Your task to perform on an android device: allow notifications from all sites in the chrome app Image 0: 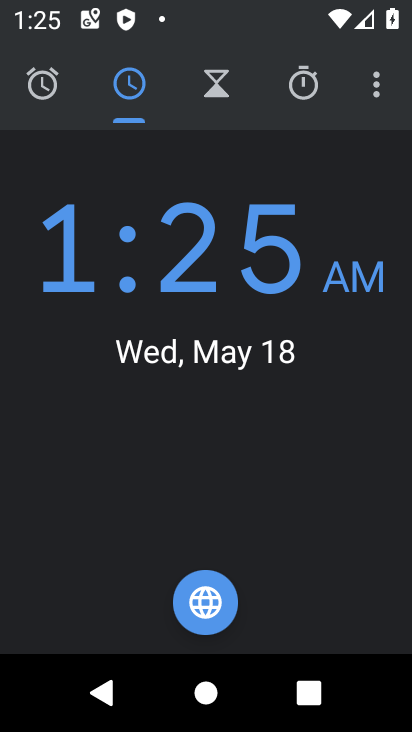
Step 0: press home button
Your task to perform on an android device: allow notifications from all sites in the chrome app Image 1: 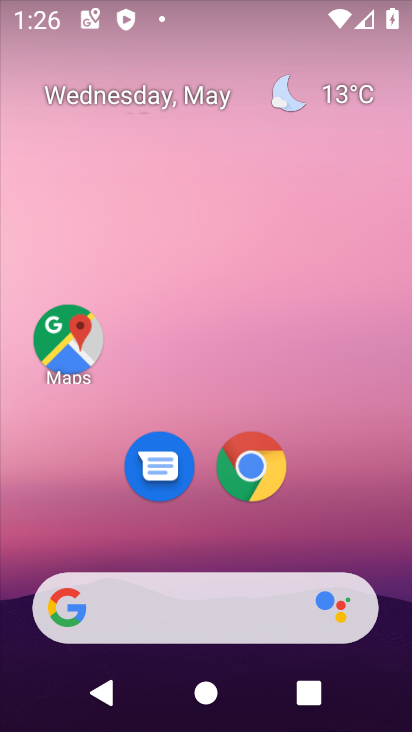
Step 1: drag from (350, 503) to (315, 178)
Your task to perform on an android device: allow notifications from all sites in the chrome app Image 2: 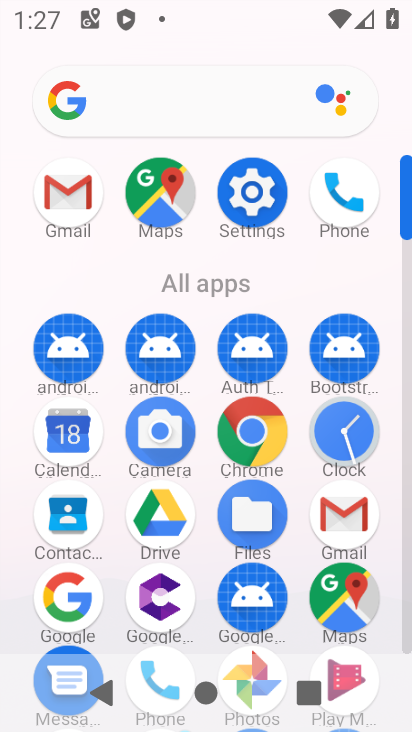
Step 2: click (256, 421)
Your task to perform on an android device: allow notifications from all sites in the chrome app Image 3: 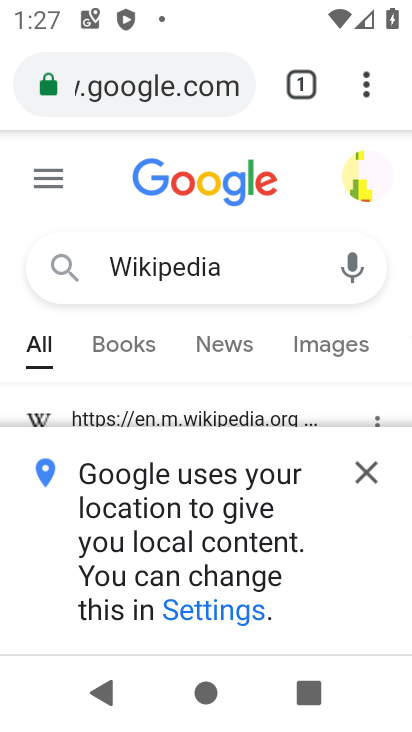
Step 3: drag from (360, 95) to (99, 528)
Your task to perform on an android device: allow notifications from all sites in the chrome app Image 4: 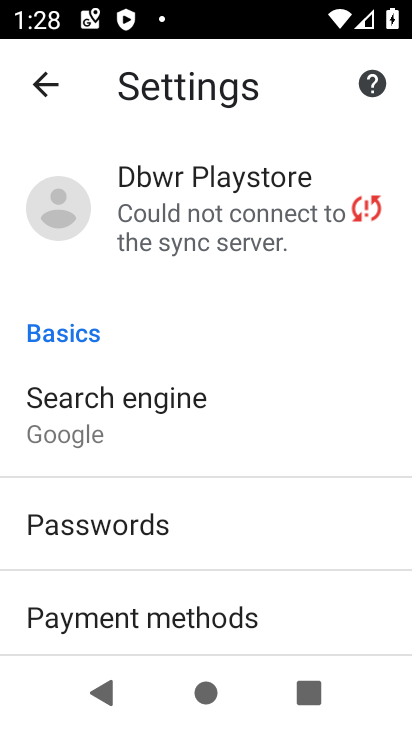
Step 4: drag from (161, 571) to (173, 446)
Your task to perform on an android device: allow notifications from all sites in the chrome app Image 5: 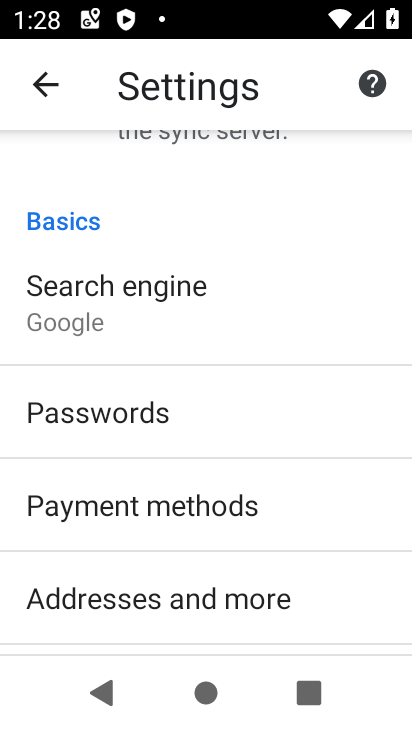
Step 5: drag from (275, 575) to (266, 366)
Your task to perform on an android device: allow notifications from all sites in the chrome app Image 6: 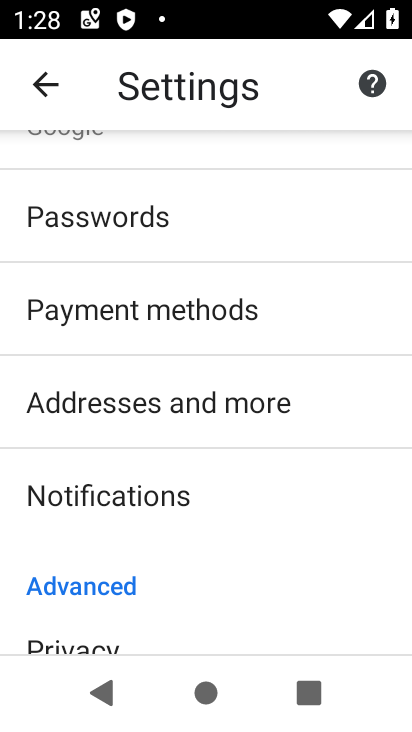
Step 6: drag from (195, 553) to (251, 183)
Your task to perform on an android device: allow notifications from all sites in the chrome app Image 7: 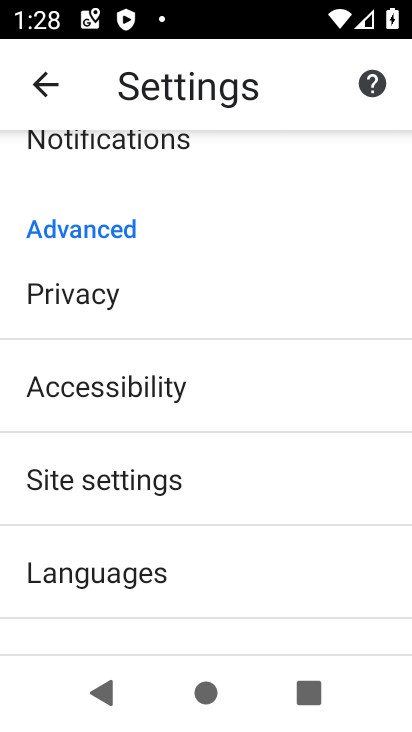
Step 7: click (175, 498)
Your task to perform on an android device: allow notifications from all sites in the chrome app Image 8: 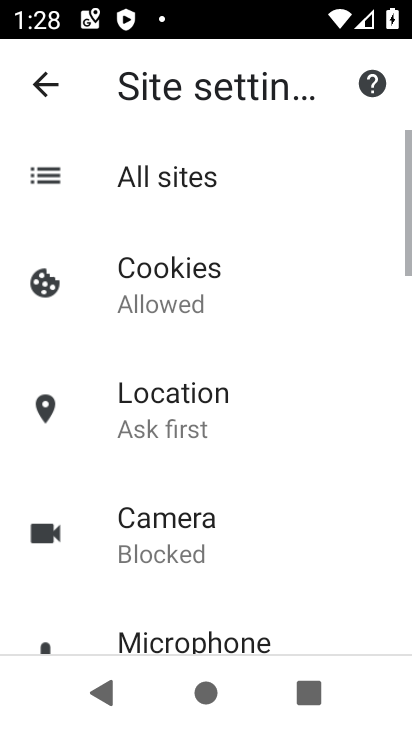
Step 8: drag from (172, 497) to (194, 206)
Your task to perform on an android device: allow notifications from all sites in the chrome app Image 9: 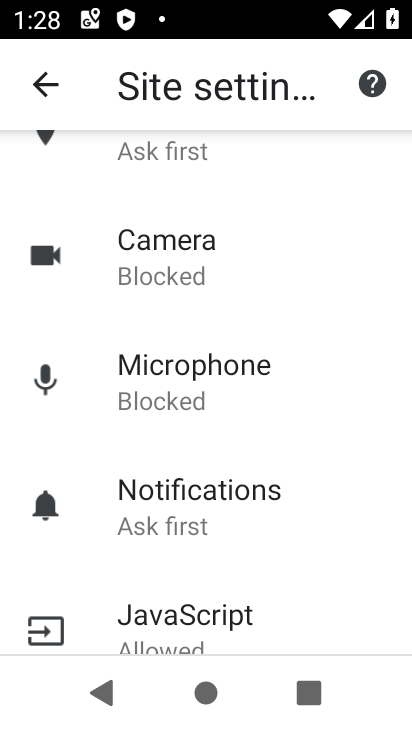
Step 9: drag from (215, 617) to (221, 271)
Your task to perform on an android device: allow notifications from all sites in the chrome app Image 10: 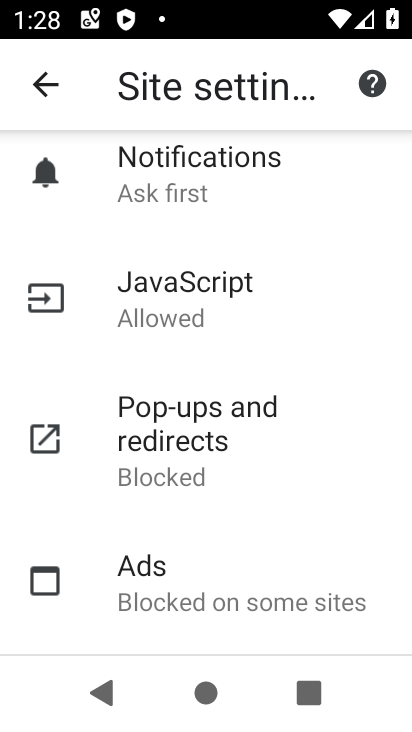
Step 10: drag from (206, 238) to (247, 608)
Your task to perform on an android device: allow notifications from all sites in the chrome app Image 11: 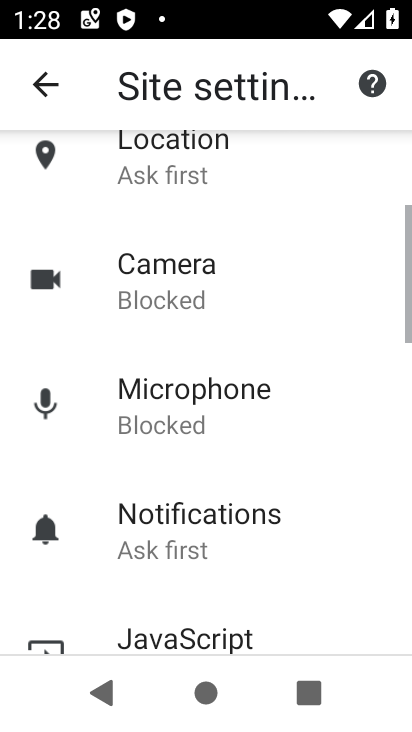
Step 11: drag from (257, 421) to (252, 653)
Your task to perform on an android device: allow notifications from all sites in the chrome app Image 12: 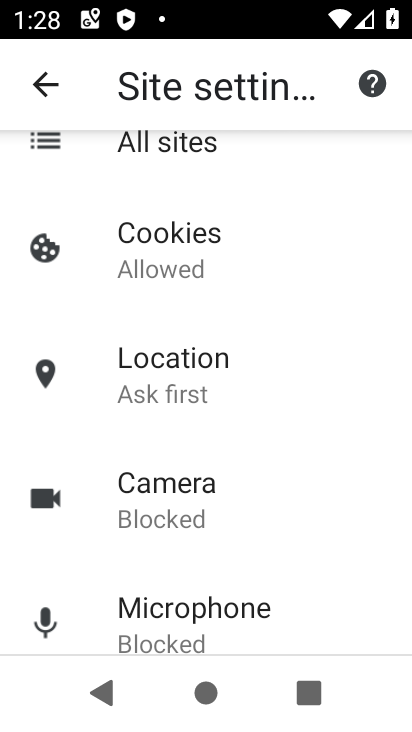
Step 12: click (171, 147)
Your task to perform on an android device: allow notifications from all sites in the chrome app Image 13: 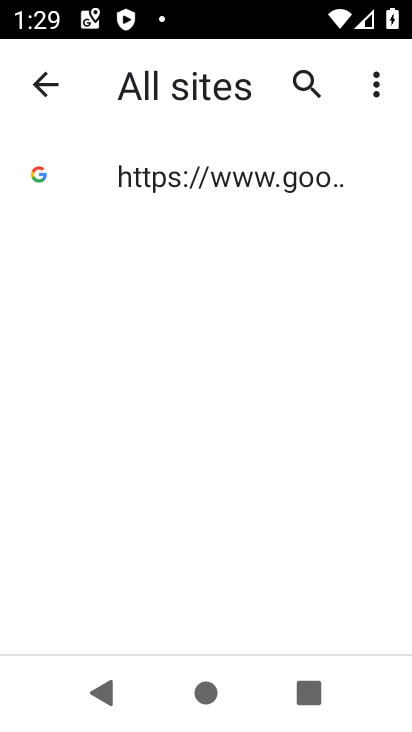
Step 13: click (202, 184)
Your task to perform on an android device: allow notifications from all sites in the chrome app Image 14: 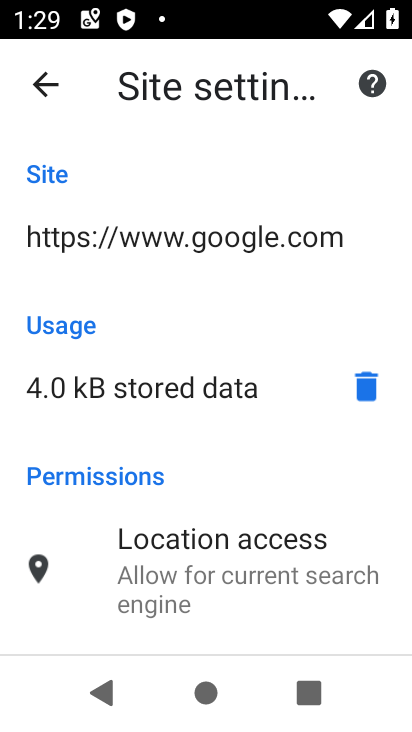
Step 14: drag from (205, 441) to (204, 117)
Your task to perform on an android device: allow notifications from all sites in the chrome app Image 15: 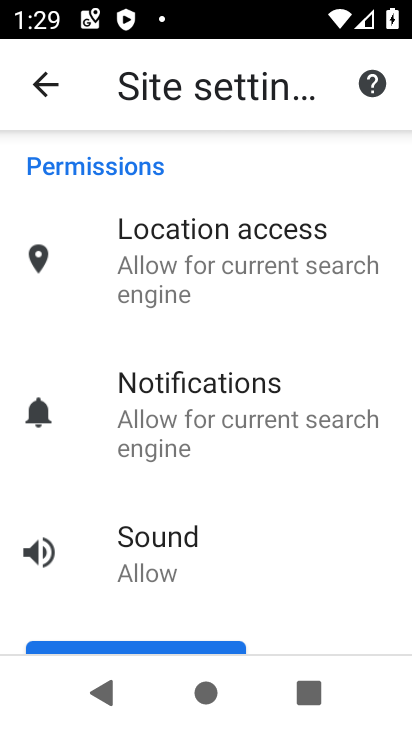
Step 15: click (197, 433)
Your task to perform on an android device: allow notifications from all sites in the chrome app Image 16: 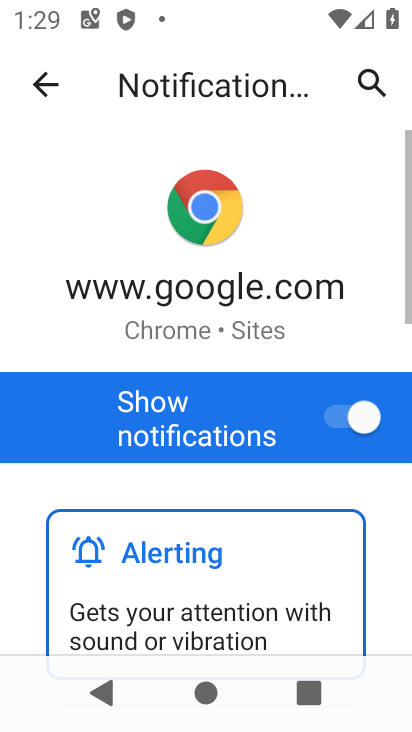
Step 16: drag from (212, 518) to (221, 28)
Your task to perform on an android device: allow notifications from all sites in the chrome app Image 17: 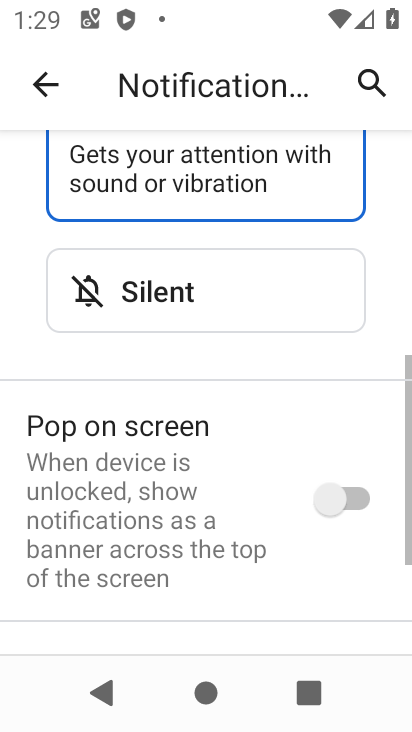
Step 17: click (278, 459)
Your task to perform on an android device: allow notifications from all sites in the chrome app Image 18: 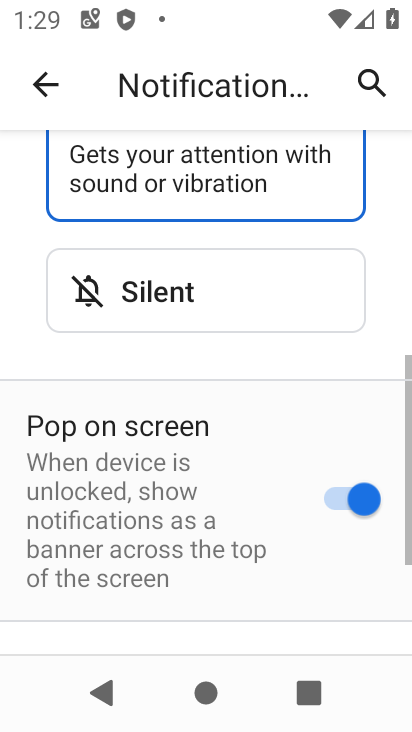
Step 18: drag from (287, 606) to (291, 238)
Your task to perform on an android device: allow notifications from all sites in the chrome app Image 19: 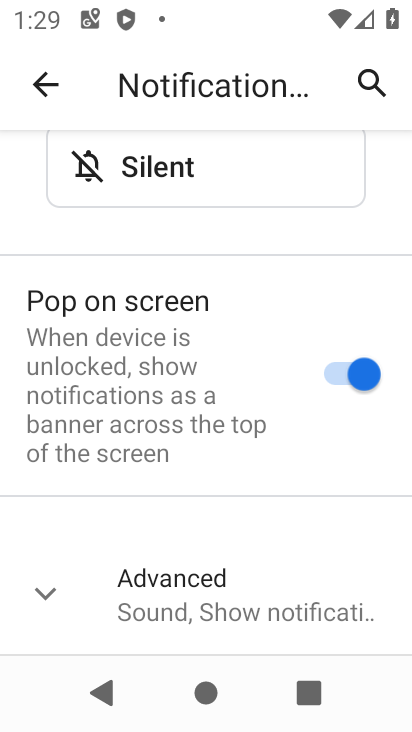
Step 19: click (174, 576)
Your task to perform on an android device: allow notifications from all sites in the chrome app Image 20: 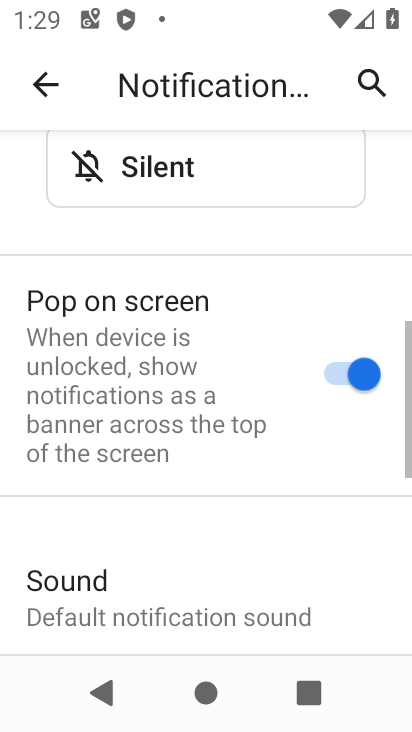
Step 20: drag from (177, 584) to (211, 143)
Your task to perform on an android device: allow notifications from all sites in the chrome app Image 21: 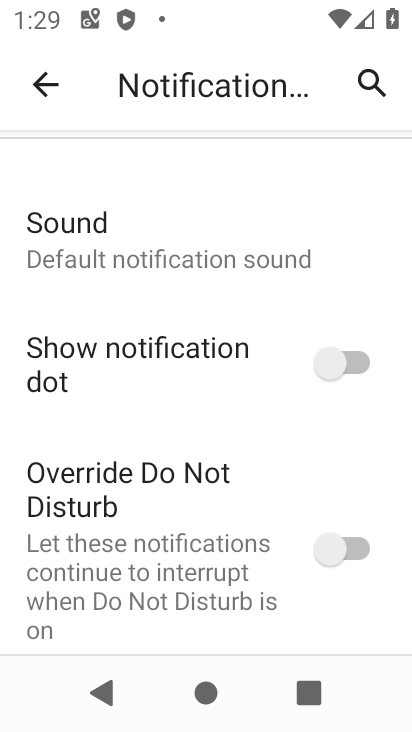
Step 21: click (217, 501)
Your task to perform on an android device: allow notifications from all sites in the chrome app Image 22: 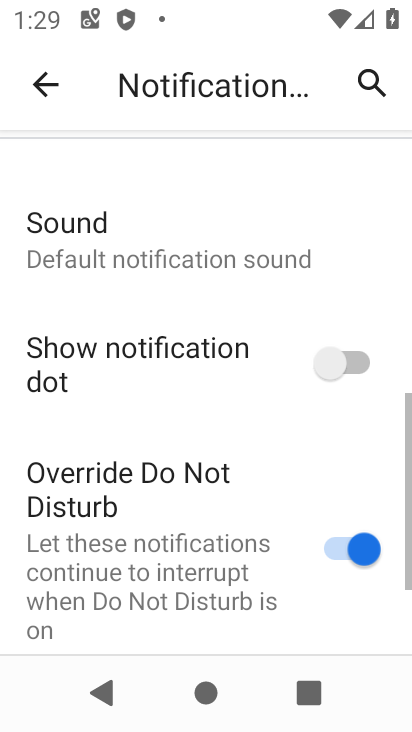
Step 22: click (247, 353)
Your task to perform on an android device: allow notifications from all sites in the chrome app Image 23: 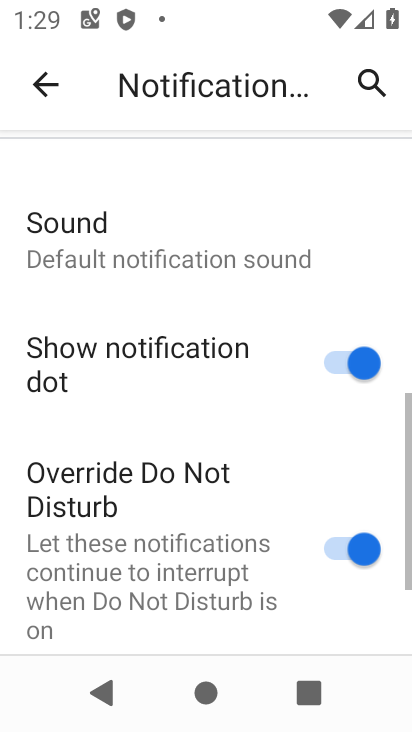
Step 23: task complete